Your task to perform on an android device: What's the price of the TCL TV? Image 0: 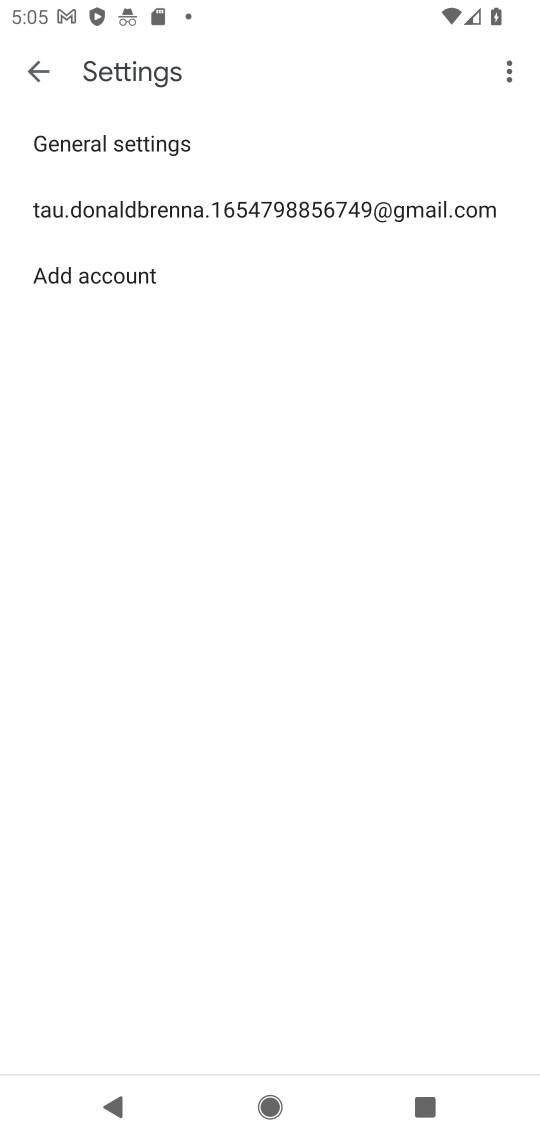
Step 0: press home button
Your task to perform on an android device: What's the price of the TCL TV? Image 1: 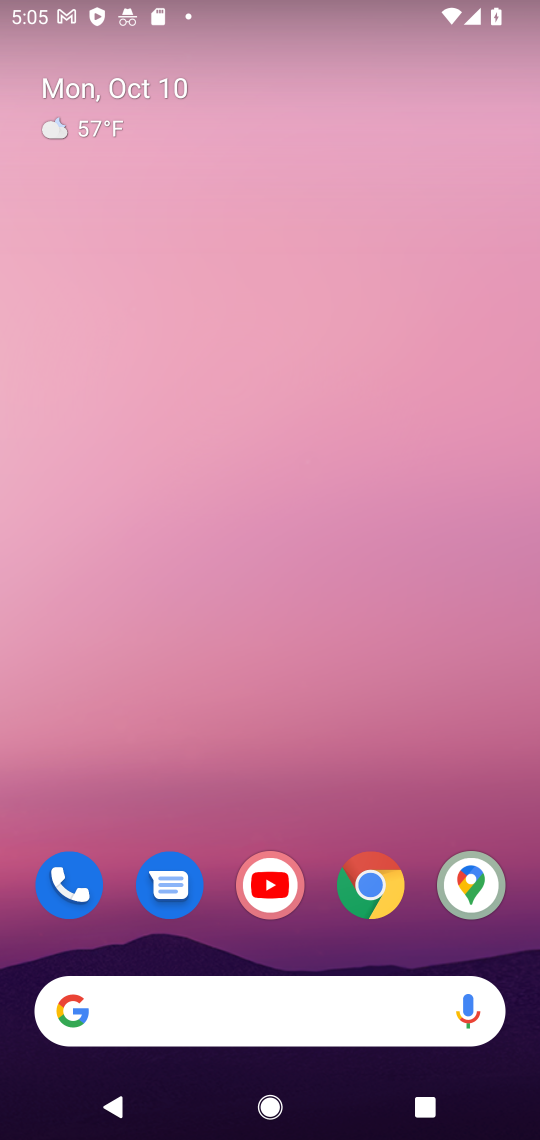
Step 1: click (225, 979)
Your task to perform on an android device: What's the price of the TCL TV? Image 2: 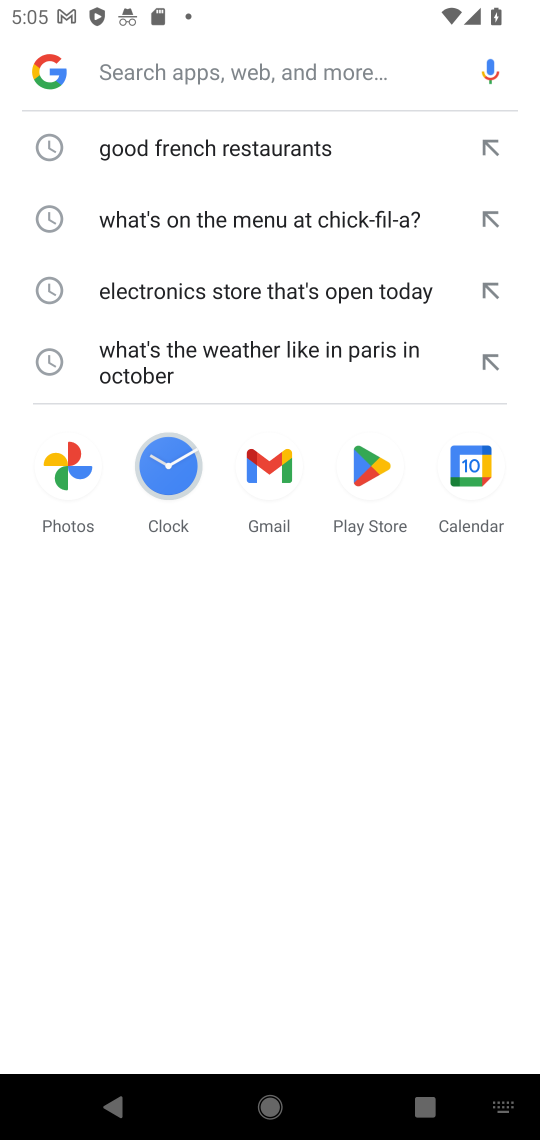
Step 2: type "What's the price of the TCL TV?"
Your task to perform on an android device: What's the price of the TCL TV? Image 3: 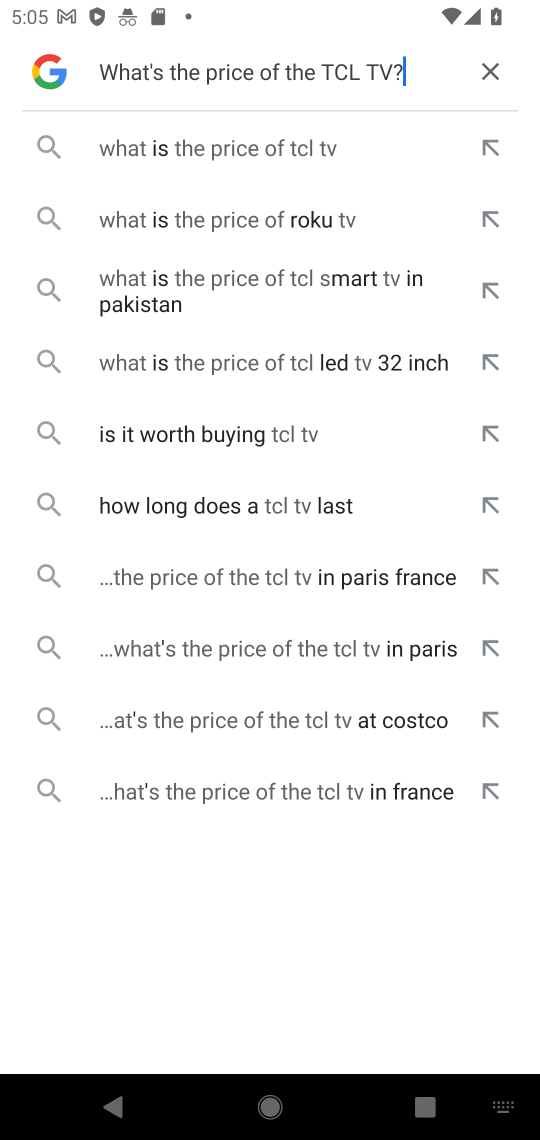
Step 3: click (283, 143)
Your task to perform on an android device: What's the price of the TCL TV? Image 4: 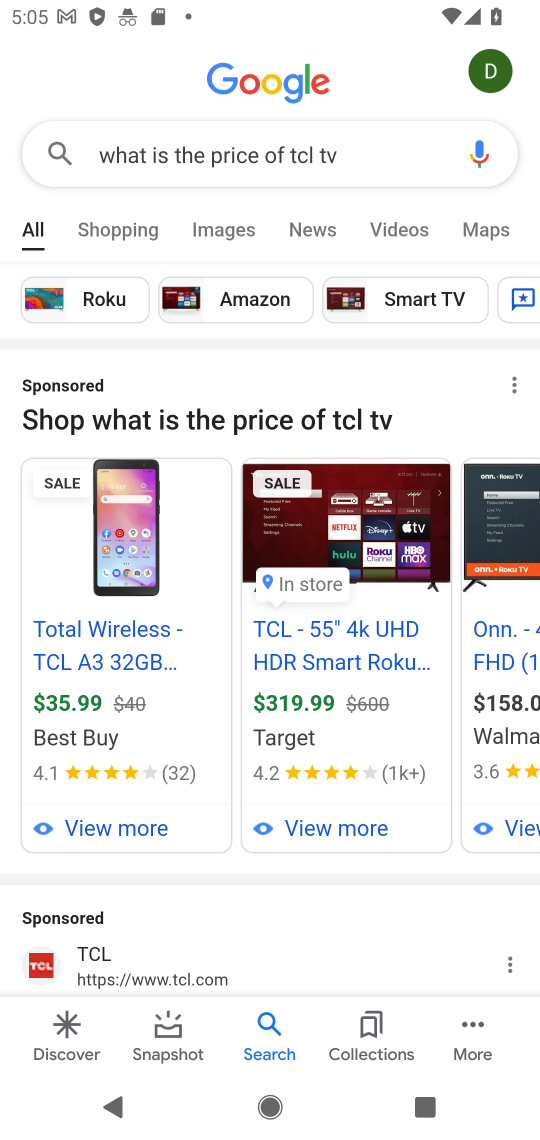
Step 4: drag from (217, 907) to (221, 641)
Your task to perform on an android device: What's the price of the TCL TV? Image 5: 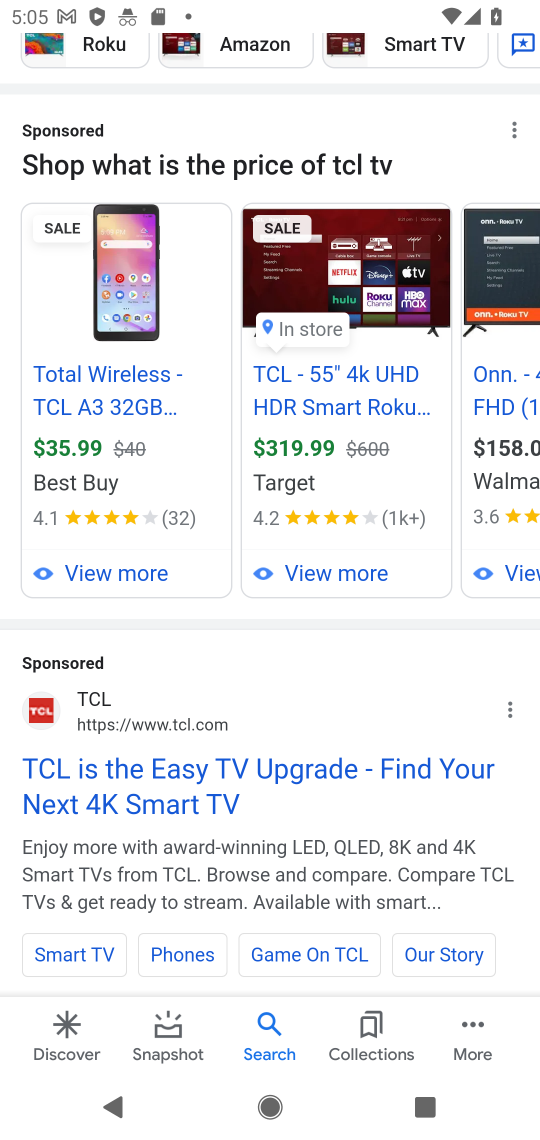
Step 5: click (236, 783)
Your task to perform on an android device: What's the price of the TCL TV? Image 6: 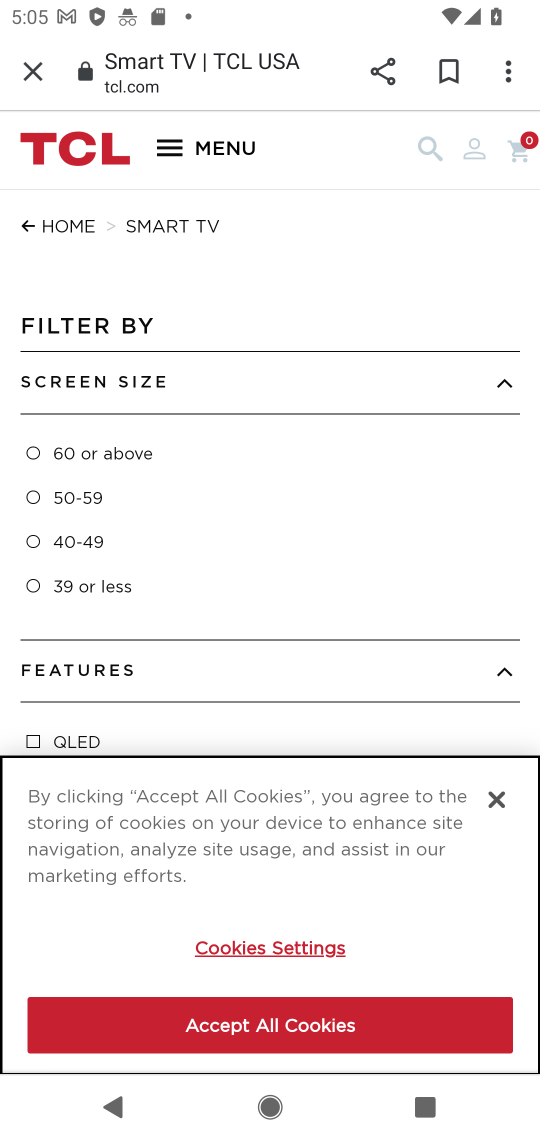
Step 6: task complete